Your task to perform on an android device: How do I get to the nearest AT&T Store? Image 0: 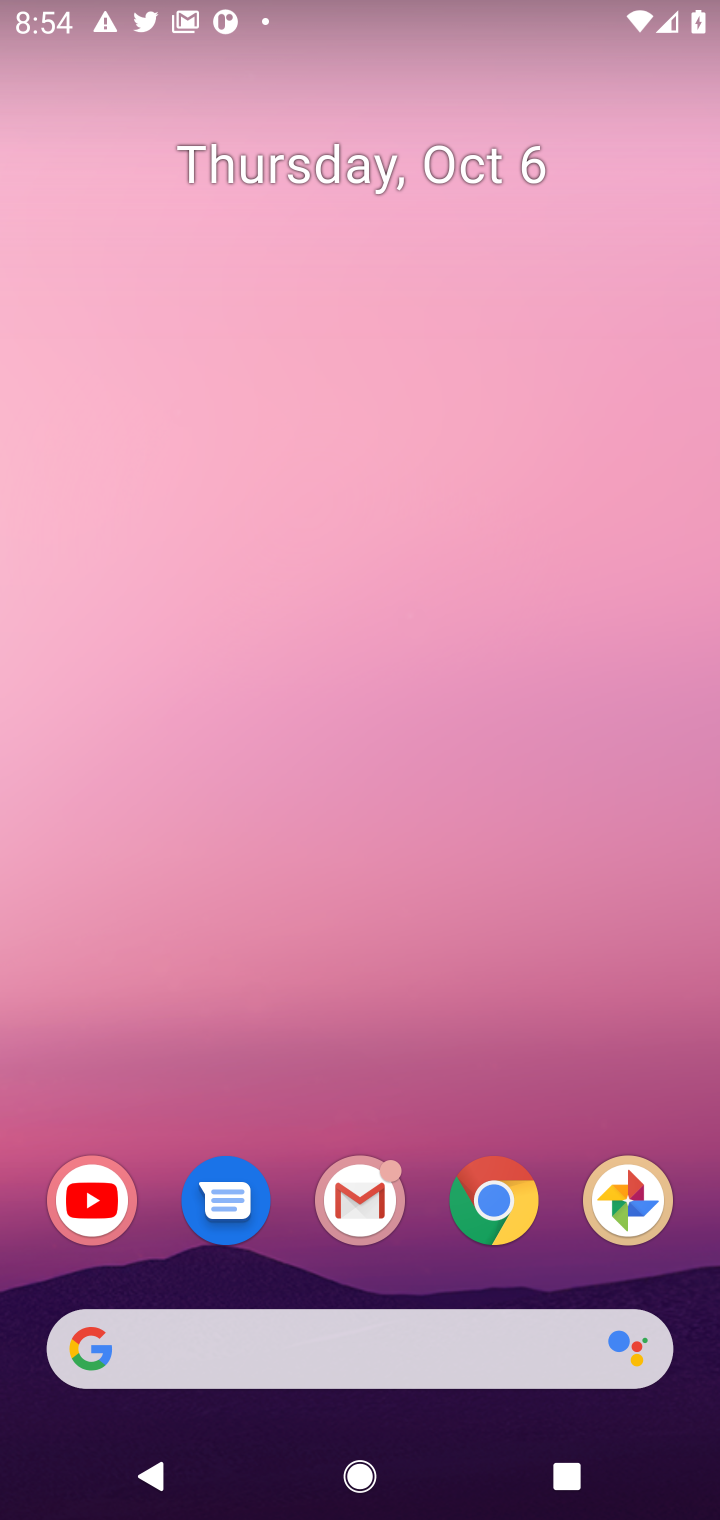
Step 0: click (487, 1213)
Your task to perform on an android device: How do I get to the nearest AT&T Store? Image 1: 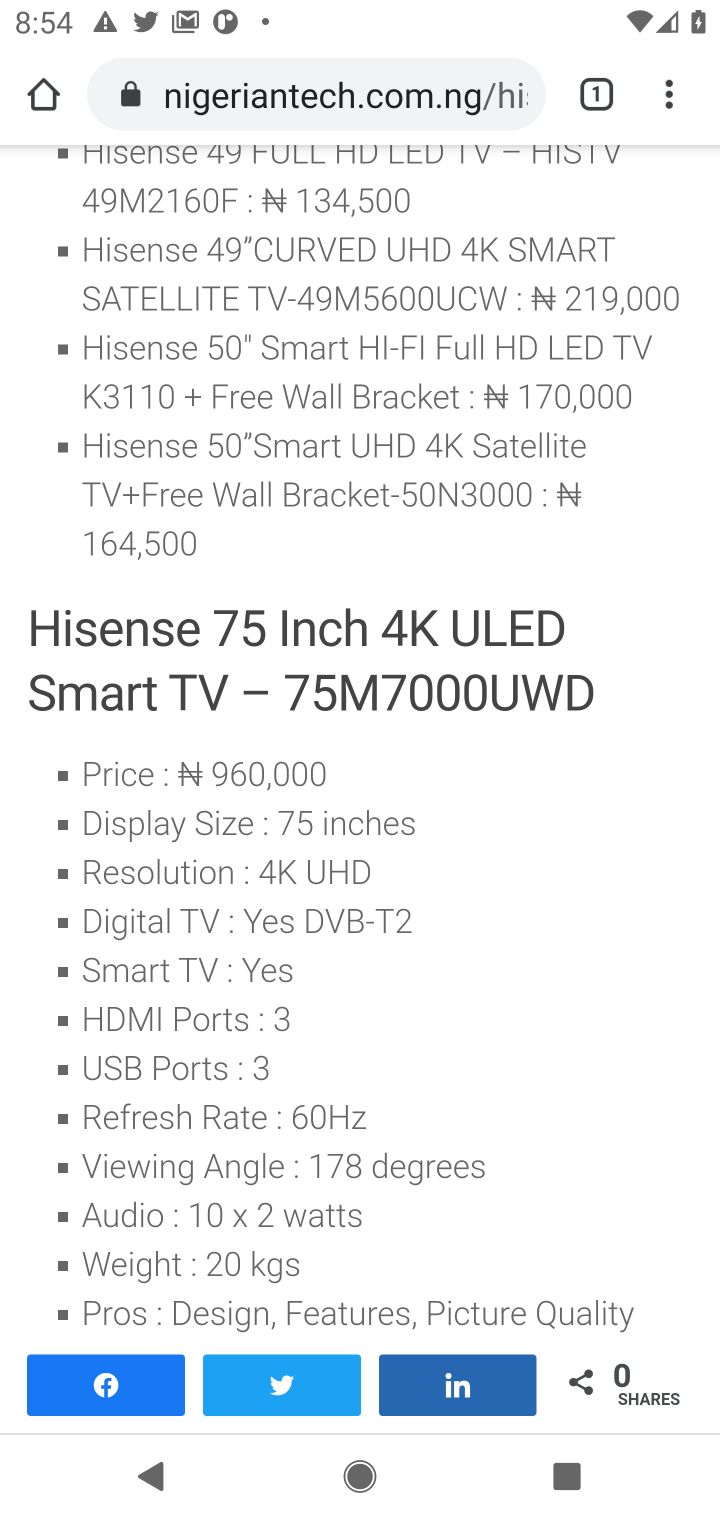
Step 1: click (408, 92)
Your task to perform on an android device: How do I get to the nearest AT&T Store? Image 2: 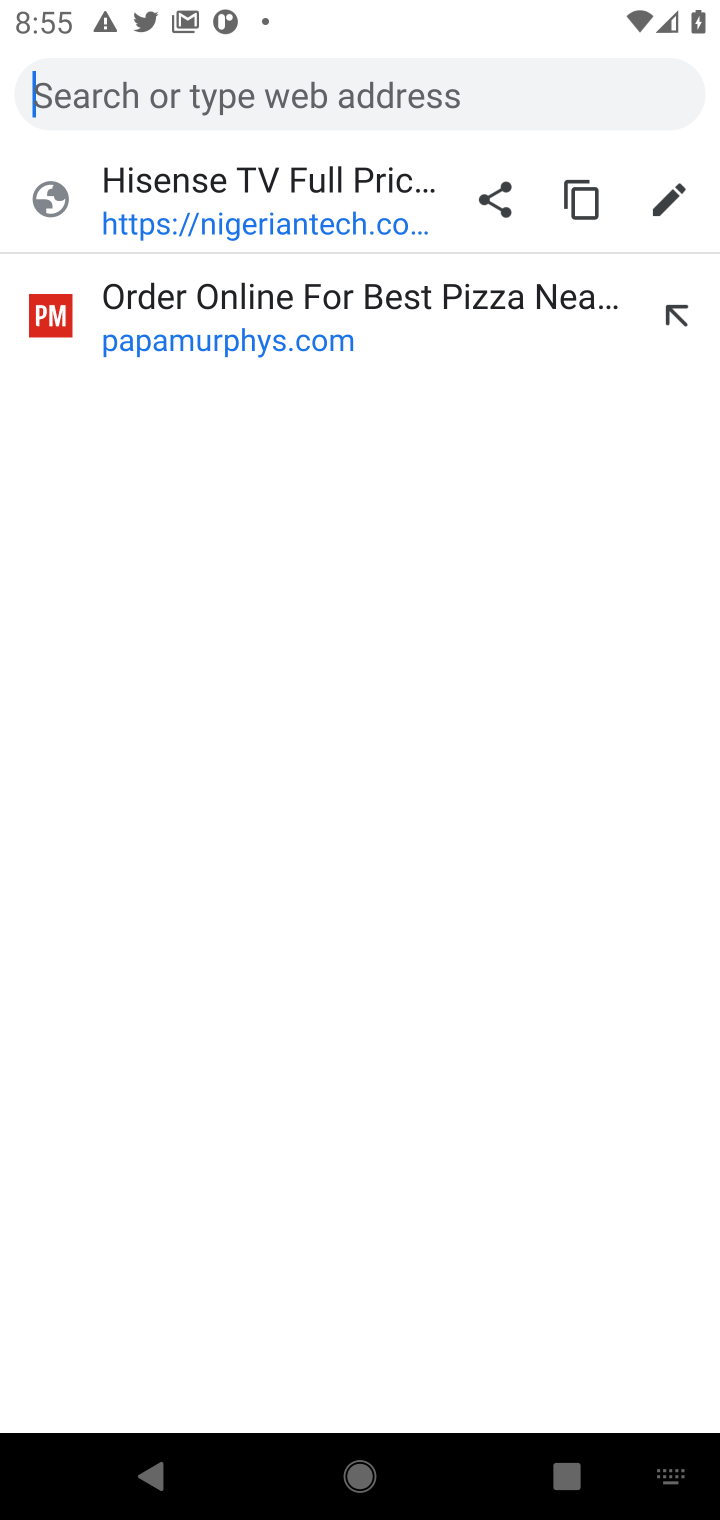
Step 2: type "nearest AT &T store"
Your task to perform on an android device: How do I get to the nearest AT&T Store? Image 3: 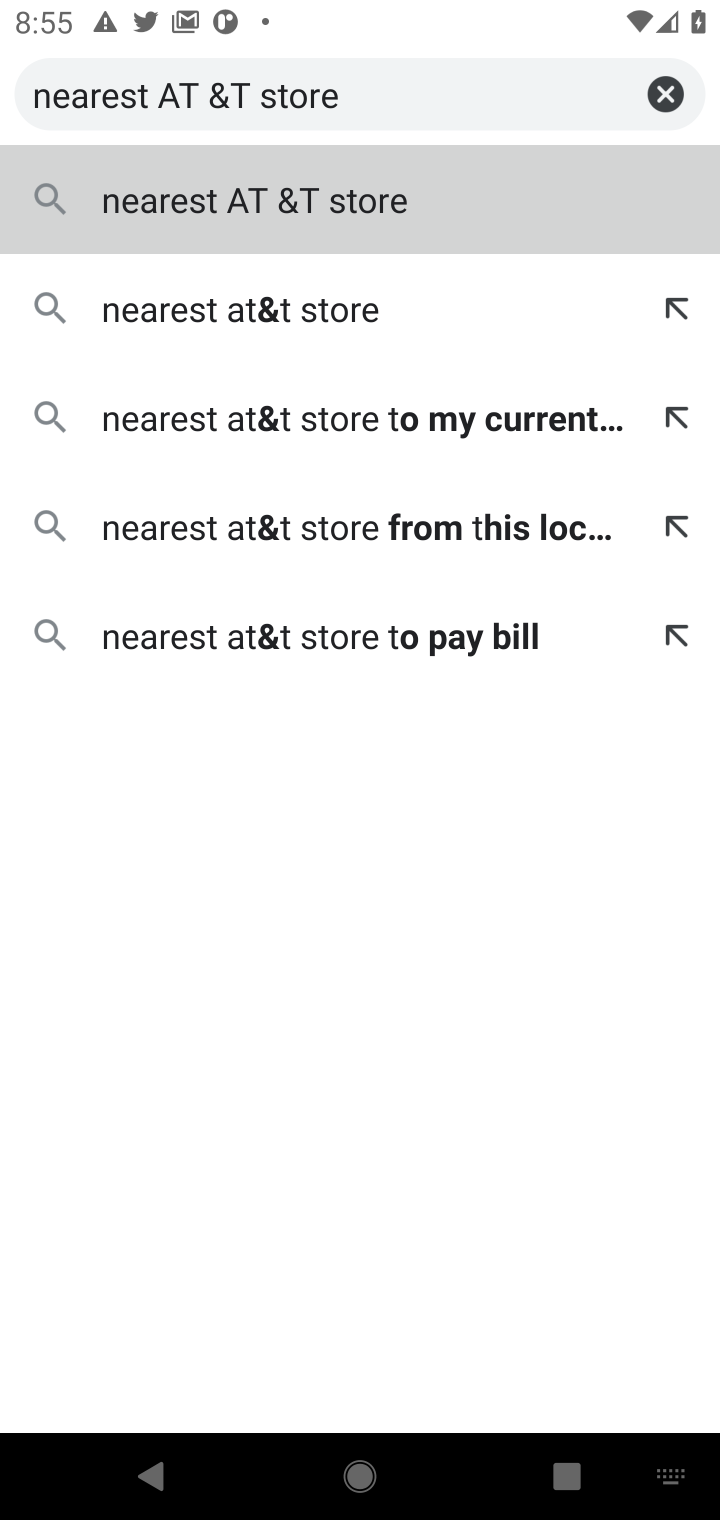
Step 3: type ""
Your task to perform on an android device: How do I get to the nearest AT&T Store? Image 4: 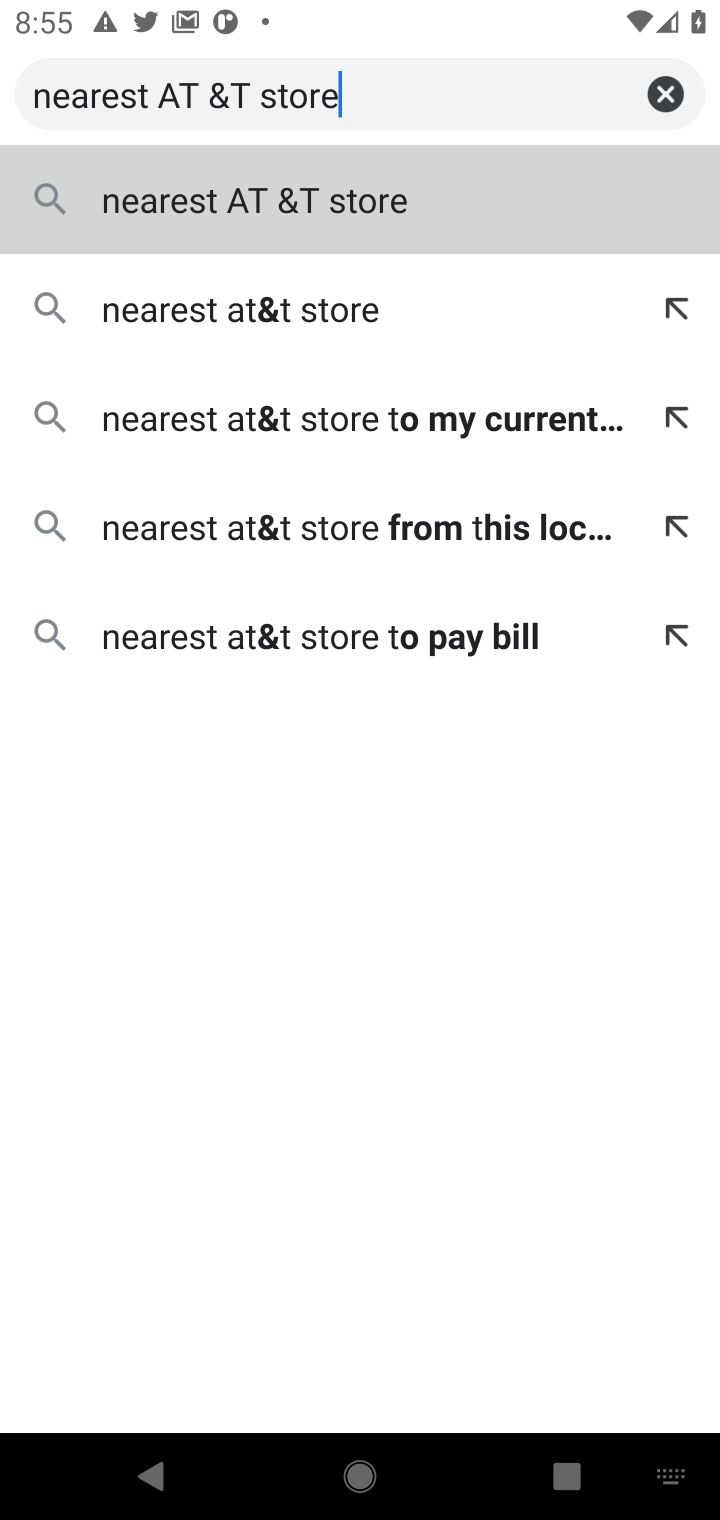
Step 4: click (286, 212)
Your task to perform on an android device: How do I get to the nearest AT&T Store? Image 5: 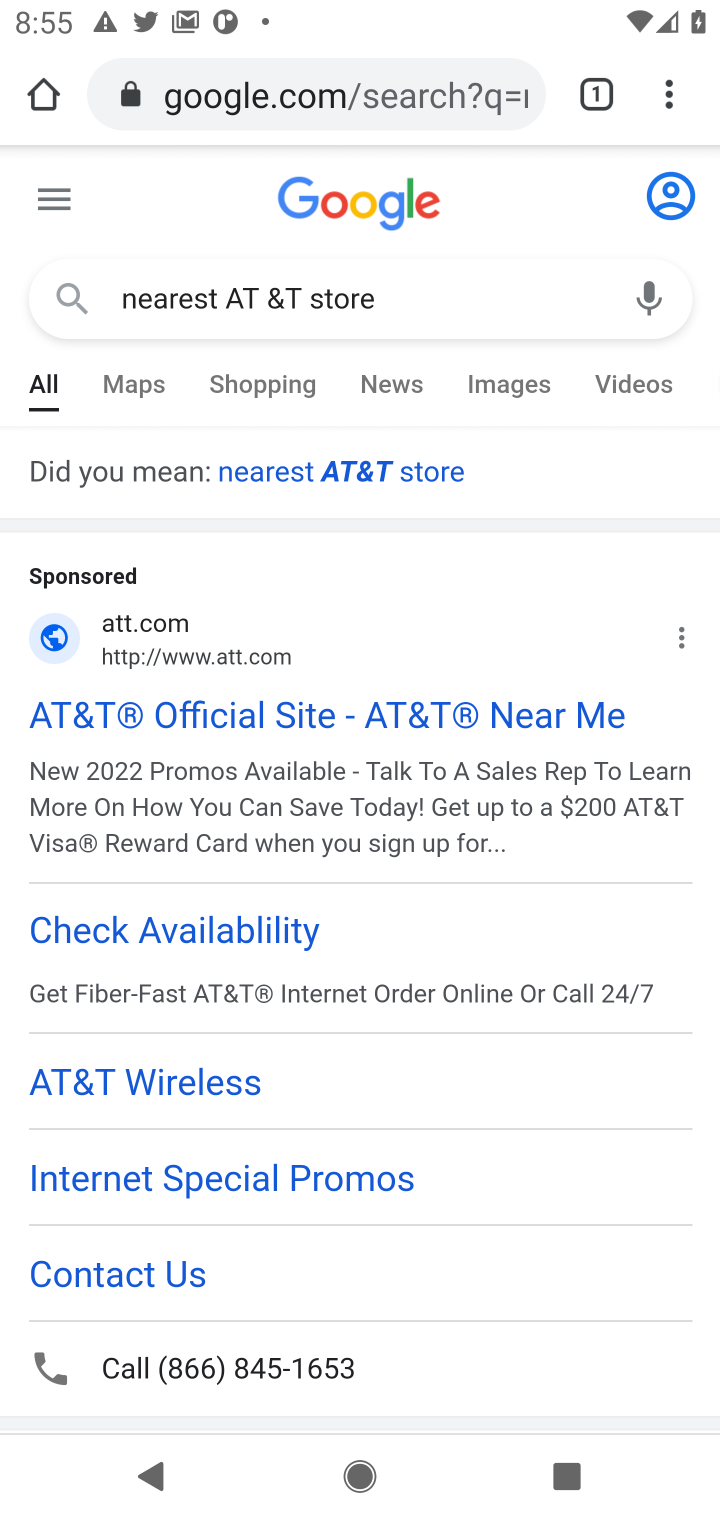
Step 5: click (204, 714)
Your task to perform on an android device: How do I get to the nearest AT&T Store? Image 6: 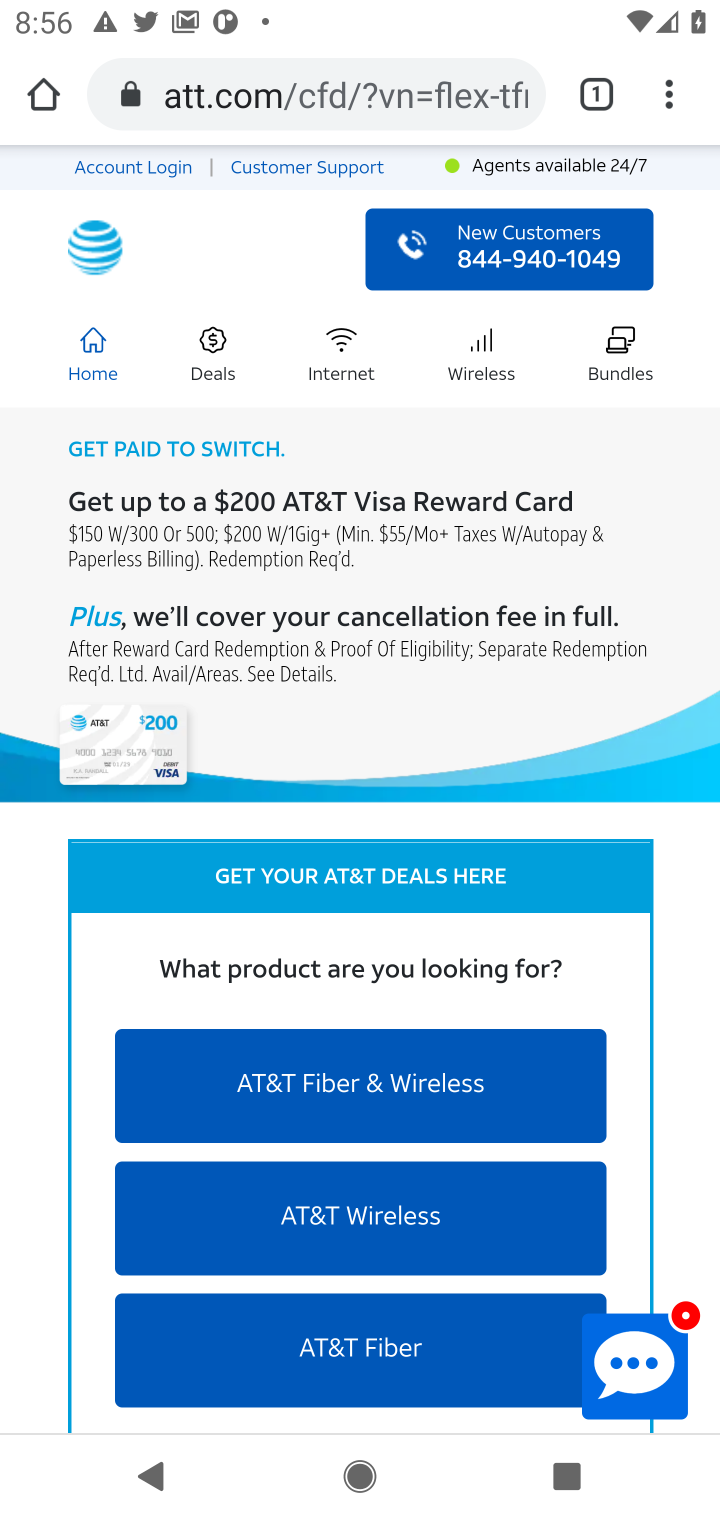
Step 6: task complete